Your task to perform on an android device: Search for vegetarian restaurants on Maps Image 0: 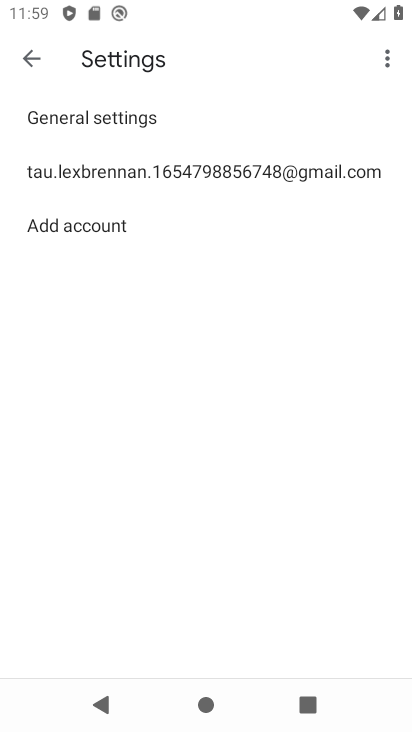
Step 0: press home button
Your task to perform on an android device: Search for vegetarian restaurants on Maps Image 1: 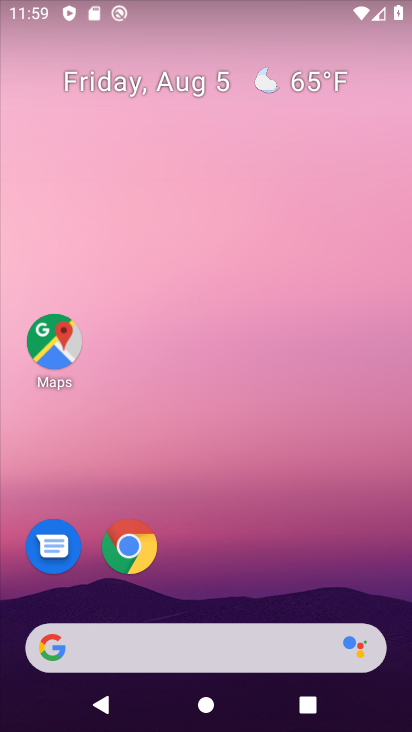
Step 1: drag from (320, 586) to (14, 10)
Your task to perform on an android device: Search for vegetarian restaurants on Maps Image 2: 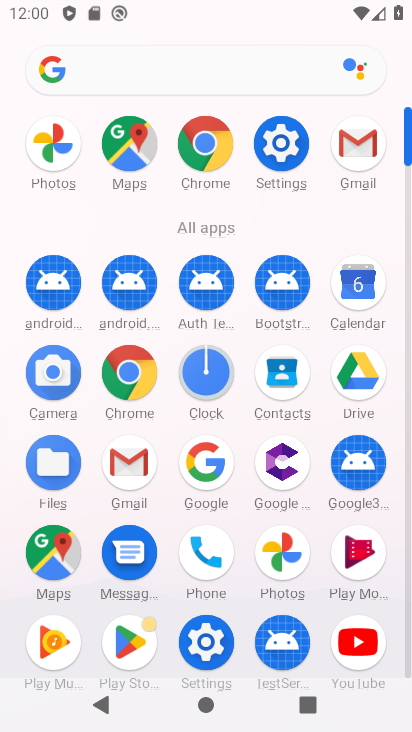
Step 2: click (62, 560)
Your task to perform on an android device: Search for vegetarian restaurants on Maps Image 3: 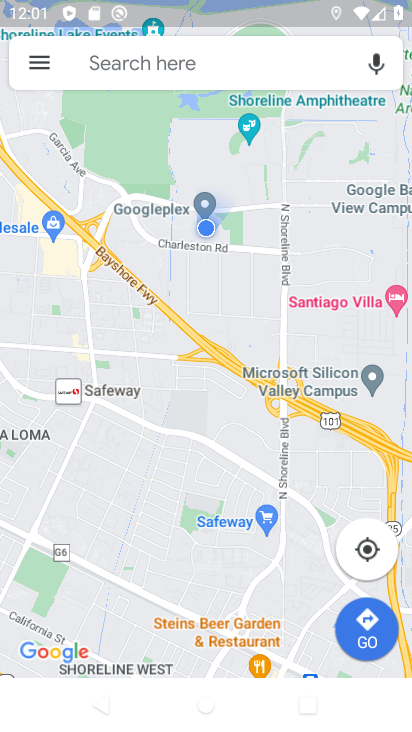
Step 3: click (257, 54)
Your task to perform on an android device: Search for vegetarian restaurants on Maps Image 4: 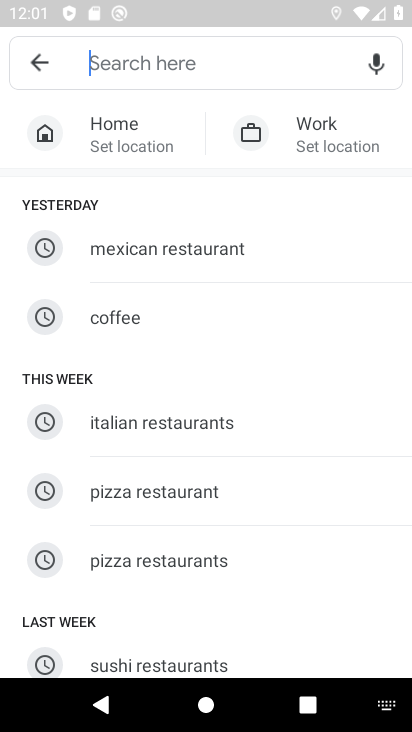
Step 4: drag from (173, 602) to (215, 104)
Your task to perform on an android device: Search for vegetarian restaurants on Maps Image 5: 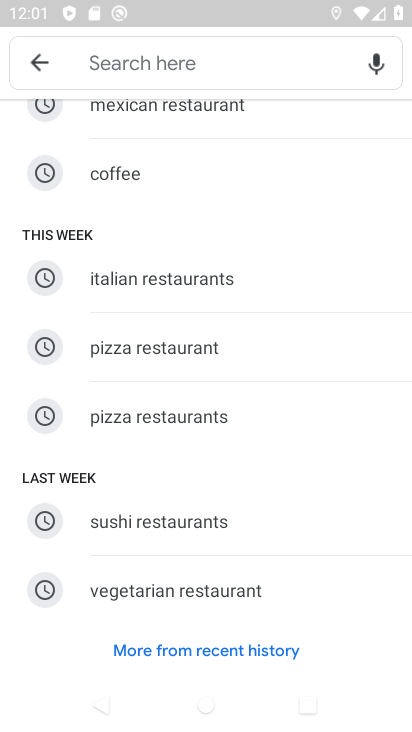
Step 5: click (175, 588)
Your task to perform on an android device: Search for vegetarian restaurants on Maps Image 6: 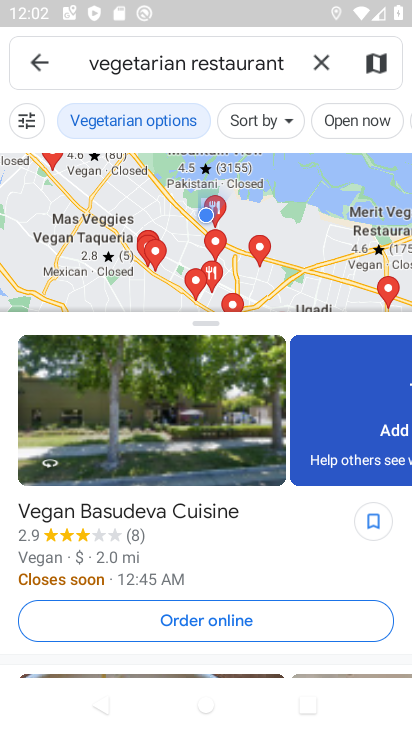
Step 6: task complete